Your task to perform on an android device: check out phone information Image 0: 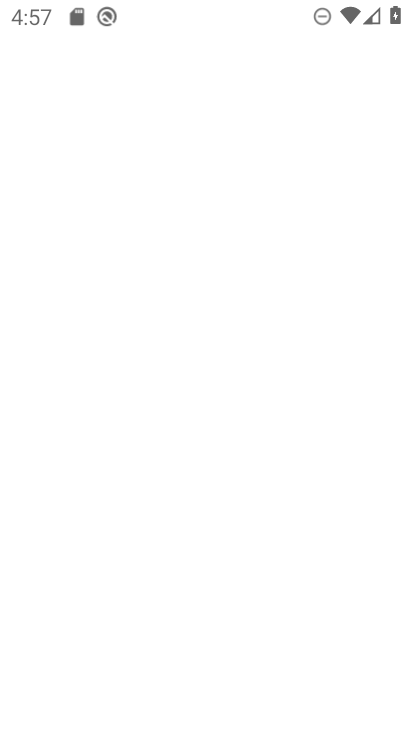
Step 0: click (357, 619)
Your task to perform on an android device: check out phone information Image 1: 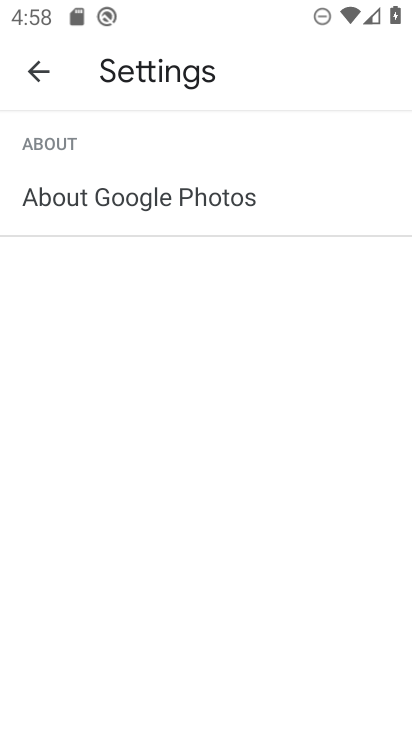
Step 1: press home button
Your task to perform on an android device: check out phone information Image 2: 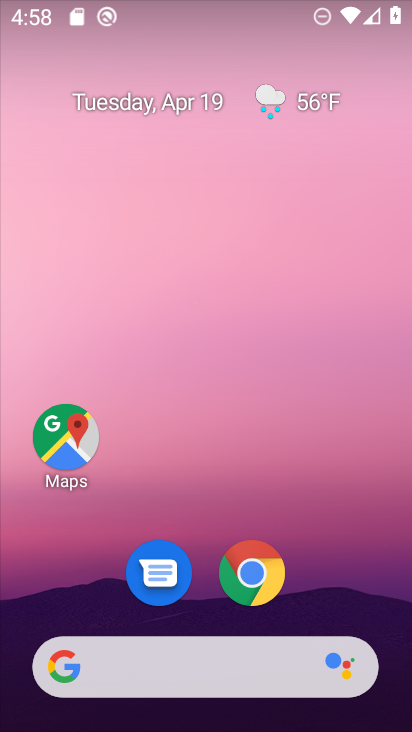
Step 2: drag from (387, 631) to (377, 5)
Your task to perform on an android device: check out phone information Image 3: 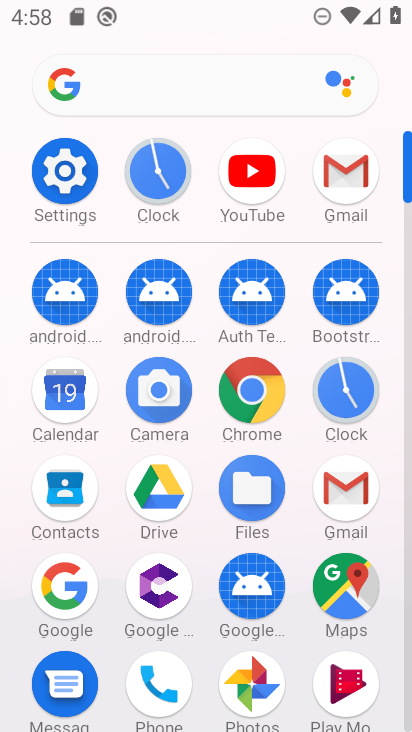
Step 3: click (60, 178)
Your task to perform on an android device: check out phone information Image 4: 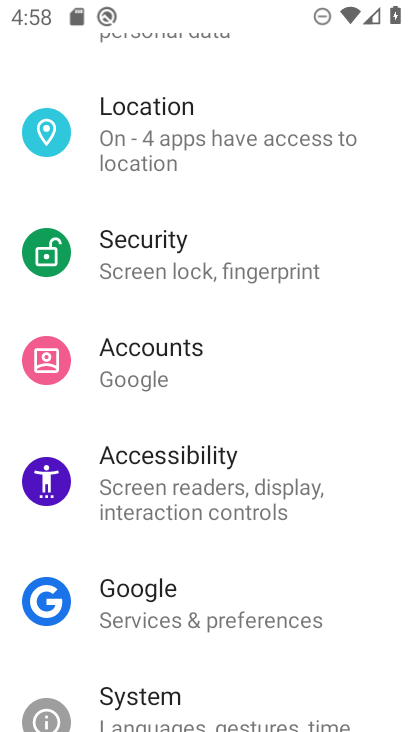
Step 4: drag from (348, 580) to (314, 135)
Your task to perform on an android device: check out phone information Image 5: 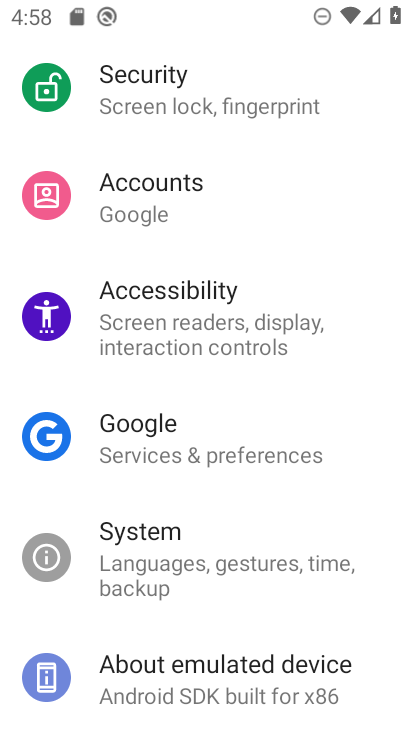
Step 5: click (230, 679)
Your task to perform on an android device: check out phone information Image 6: 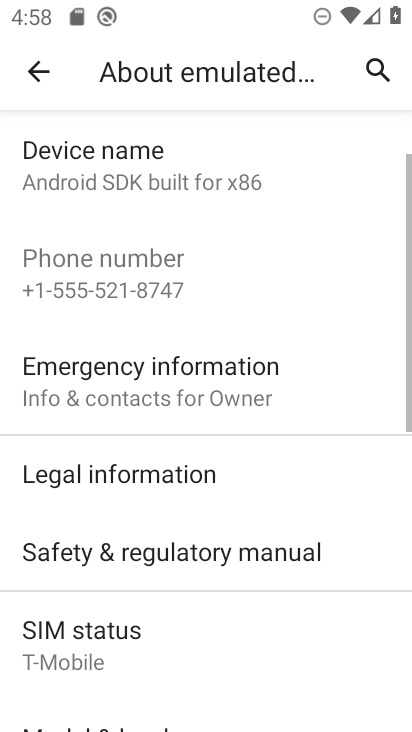
Step 6: task complete